Your task to perform on an android device: set the timer Image 0: 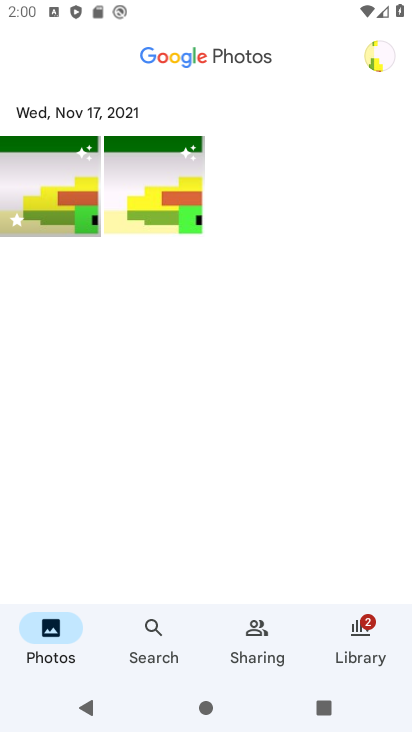
Step 0: press home button
Your task to perform on an android device: set the timer Image 1: 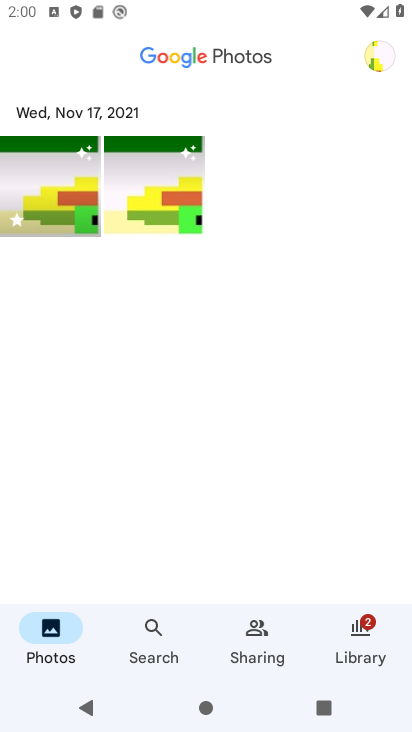
Step 1: press home button
Your task to perform on an android device: set the timer Image 2: 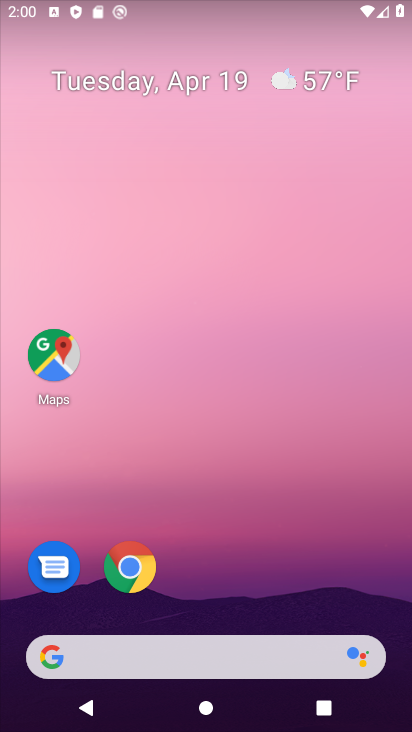
Step 2: drag from (375, 621) to (319, 98)
Your task to perform on an android device: set the timer Image 3: 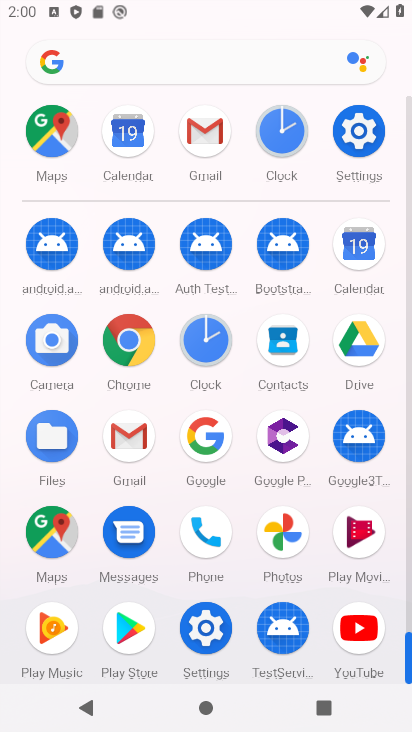
Step 3: click (202, 343)
Your task to perform on an android device: set the timer Image 4: 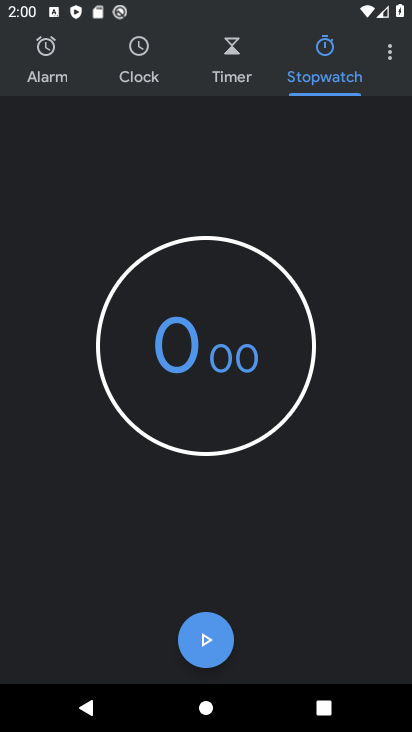
Step 4: click (230, 54)
Your task to perform on an android device: set the timer Image 5: 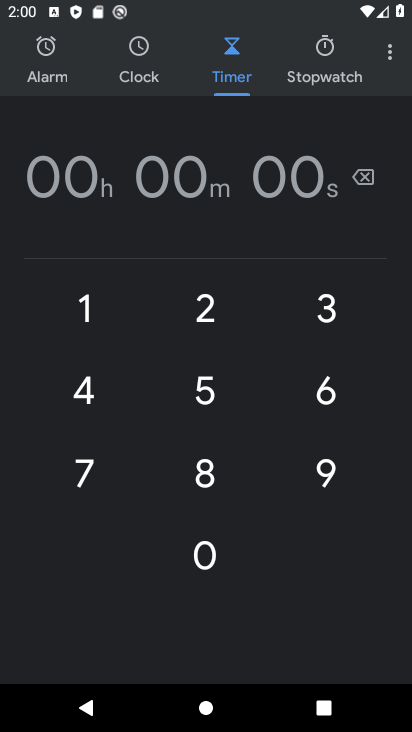
Step 5: click (84, 309)
Your task to perform on an android device: set the timer Image 6: 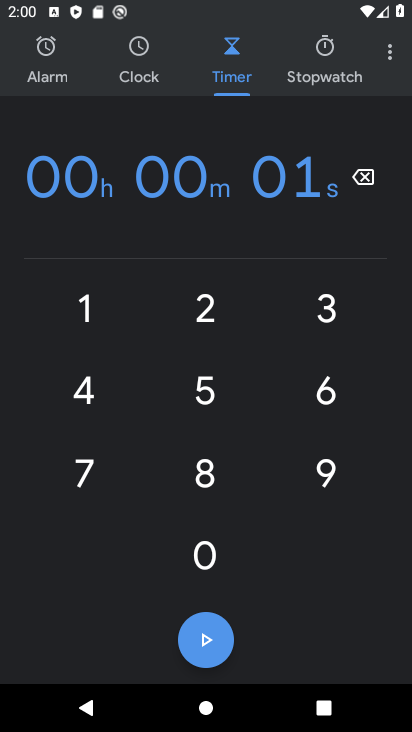
Step 6: click (202, 389)
Your task to perform on an android device: set the timer Image 7: 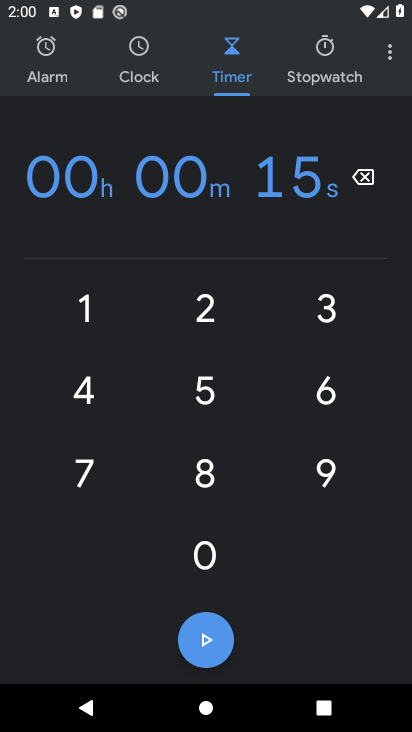
Step 7: click (201, 556)
Your task to perform on an android device: set the timer Image 8: 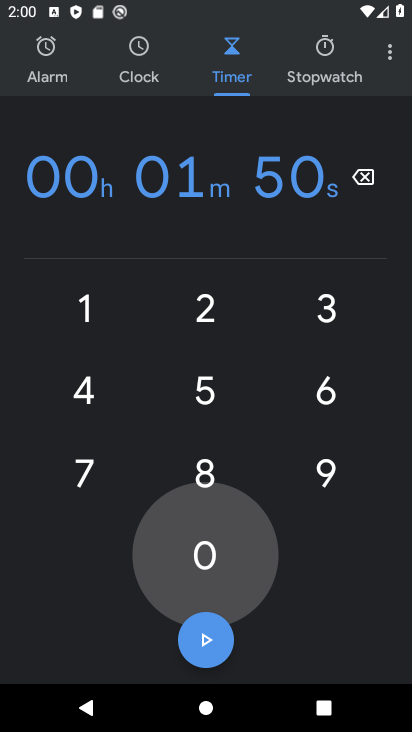
Step 8: click (201, 556)
Your task to perform on an android device: set the timer Image 9: 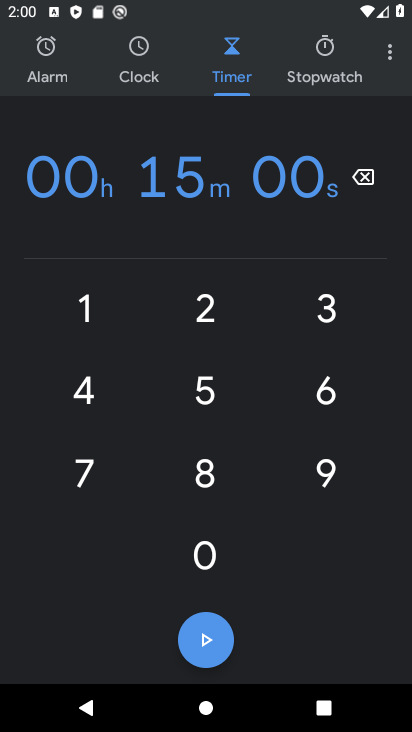
Step 9: click (201, 556)
Your task to perform on an android device: set the timer Image 10: 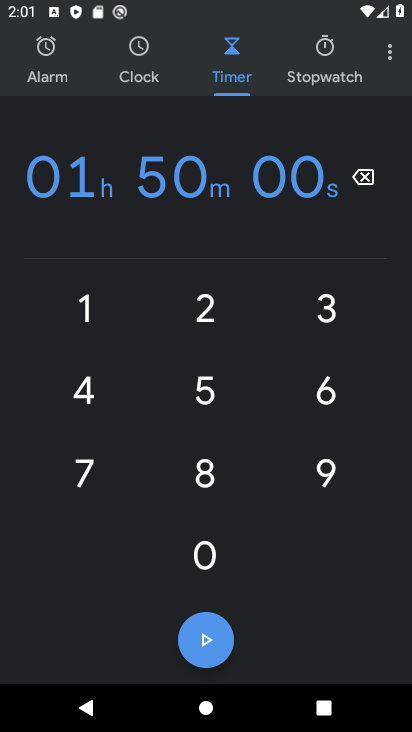
Step 10: task complete